Your task to perform on an android device: uninstall "Gmail" Image 0: 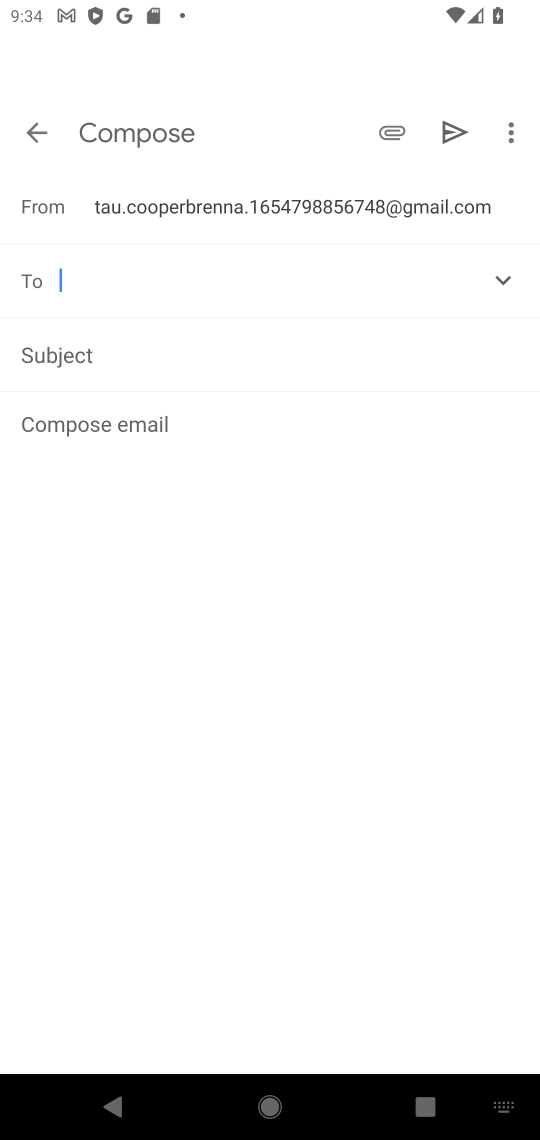
Step 0: press home button
Your task to perform on an android device: uninstall "Gmail" Image 1: 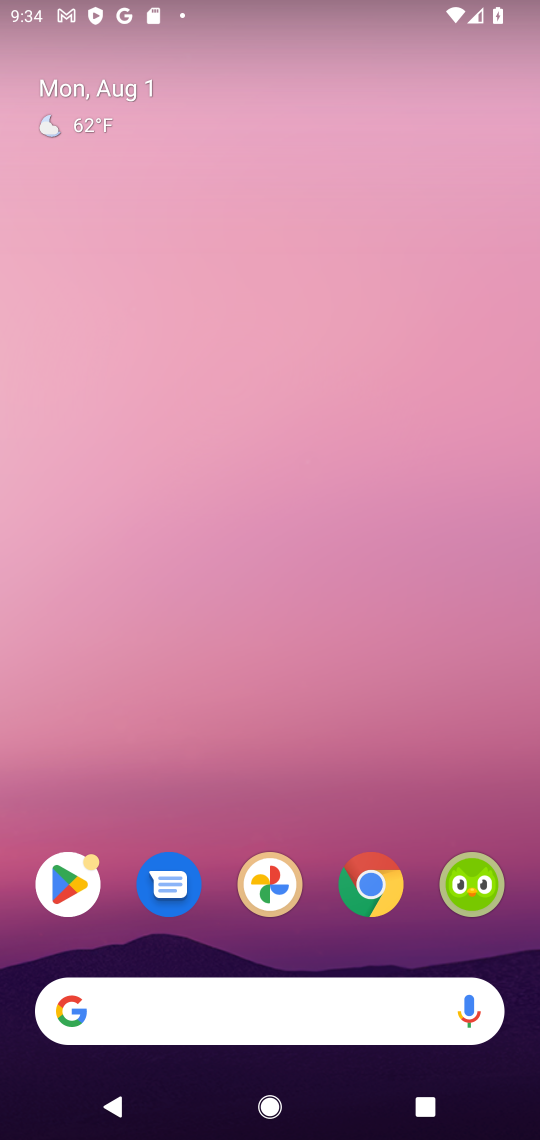
Step 1: drag from (161, 1099) to (214, 169)
Your task to perform on an android device: uninstall "Gmail" Image 2: 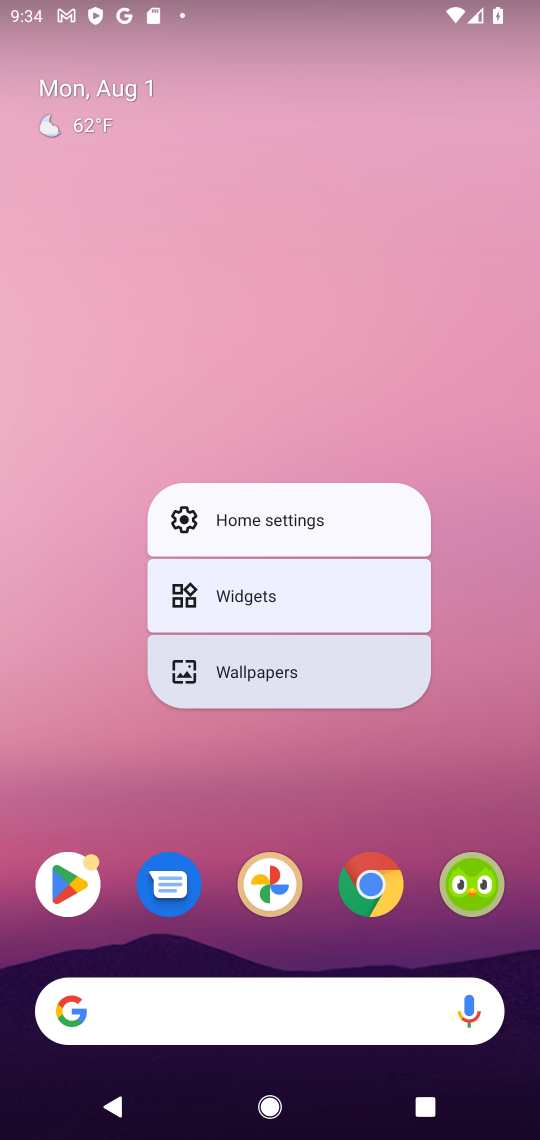
Step 2: click (285, 1108)
Your task to perform on an android device: uninstall "Gmail" Image 3: 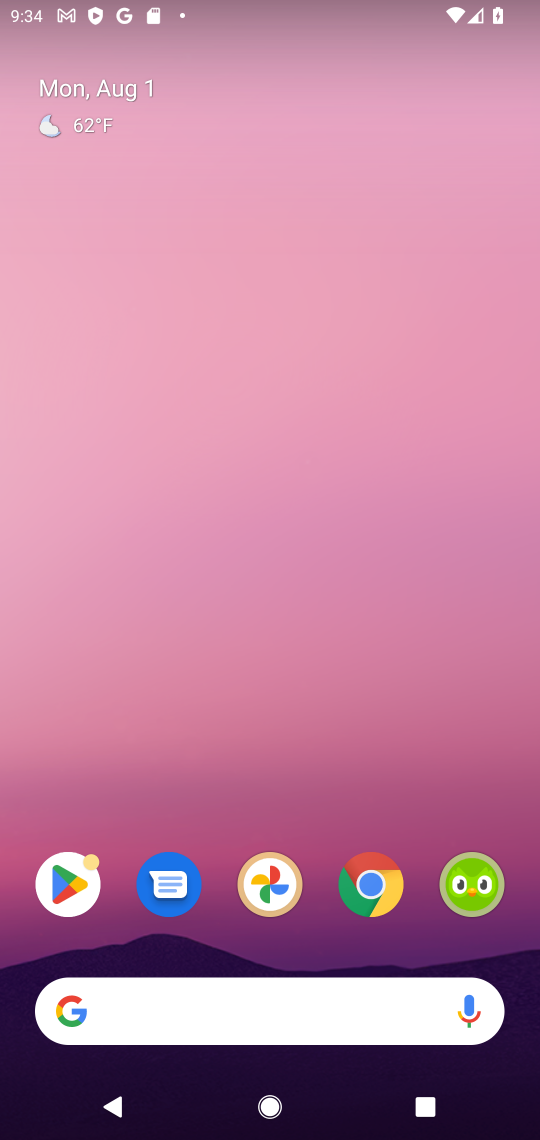
Step 3: click (70, 880)
Your task to perform on an android device: uninstall "Gmail" Image 4: 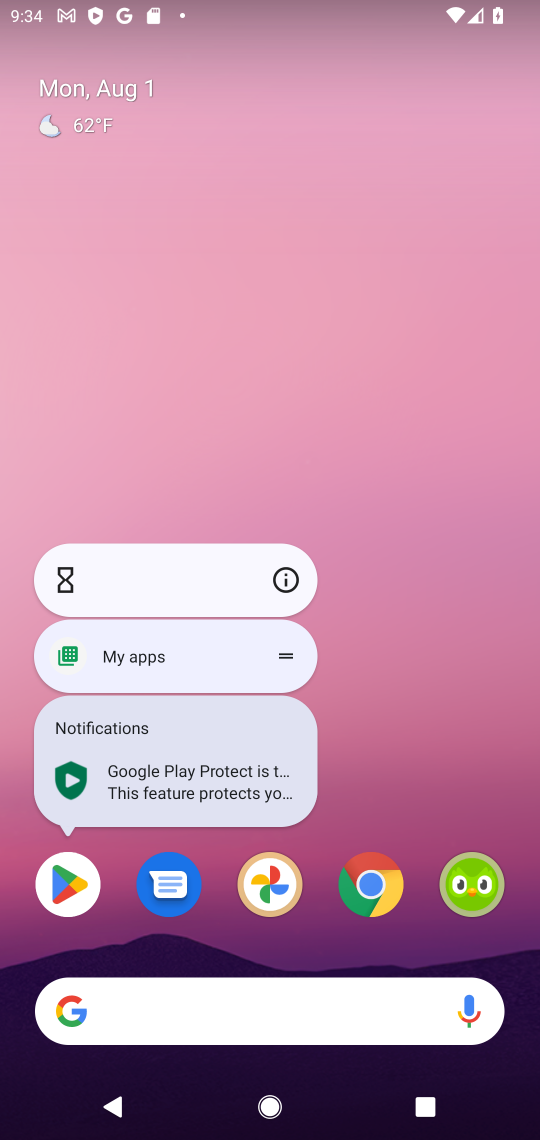
Step 4: click (70, 880)
Your task to perform on an android device: uninstall "Gmail" Image 5: 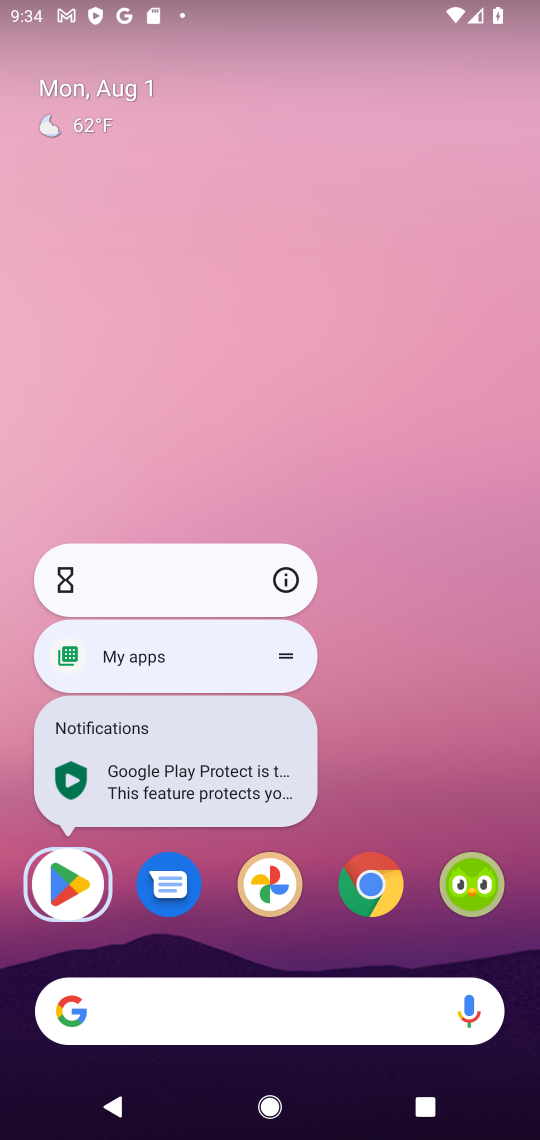
Step 5: click (70, 880)
Your task to perform on an android device: uninstall "Gmail" Image 6: 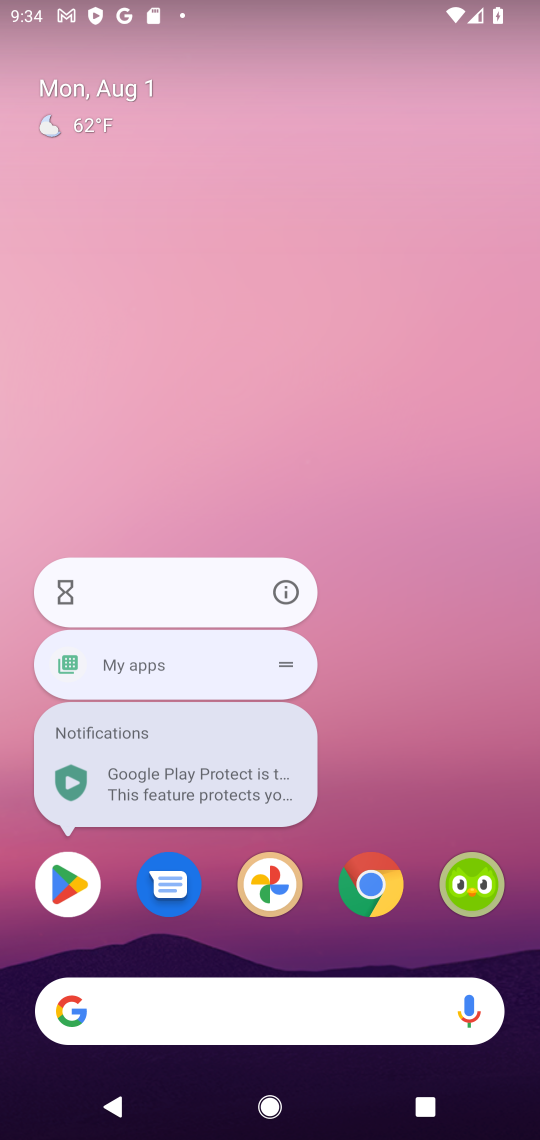
Step 6: click (70, 880)
Your task to perform on an android device: uninstall "Gmail" Image 7: 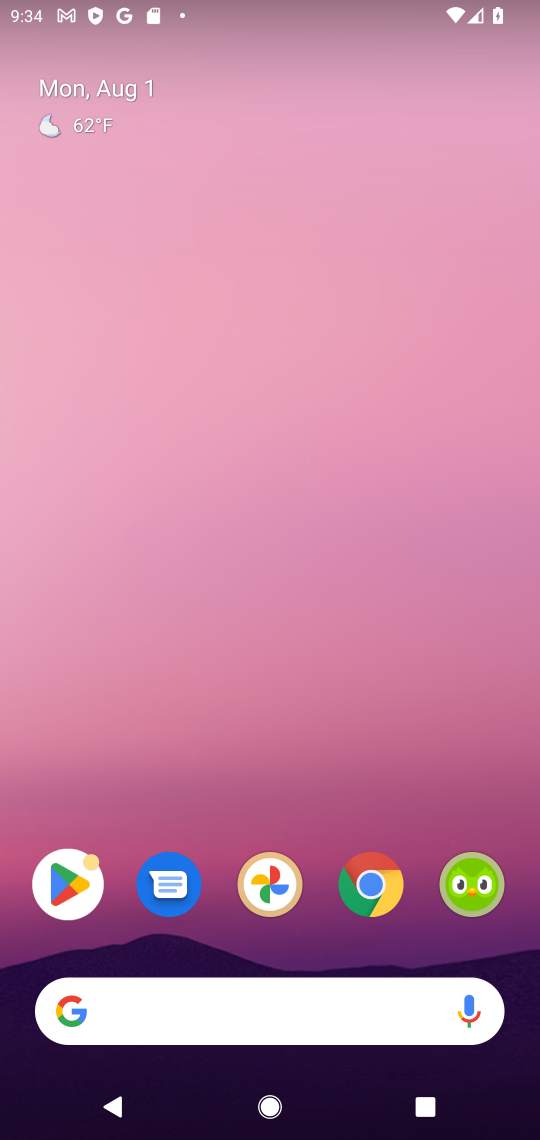
Step 7: click (70, 880)
Your task to perform on an android device: uninstall "Gmail" Image 8: 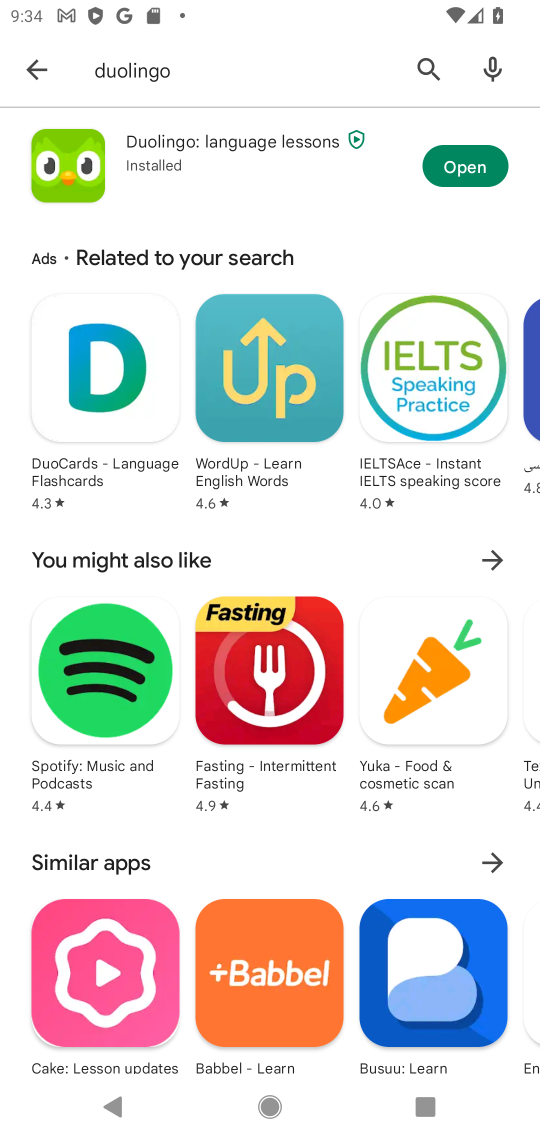
Step 8: click (420, 67)
Your task to perform on an android device: uninstall "Gmail" Image 9: 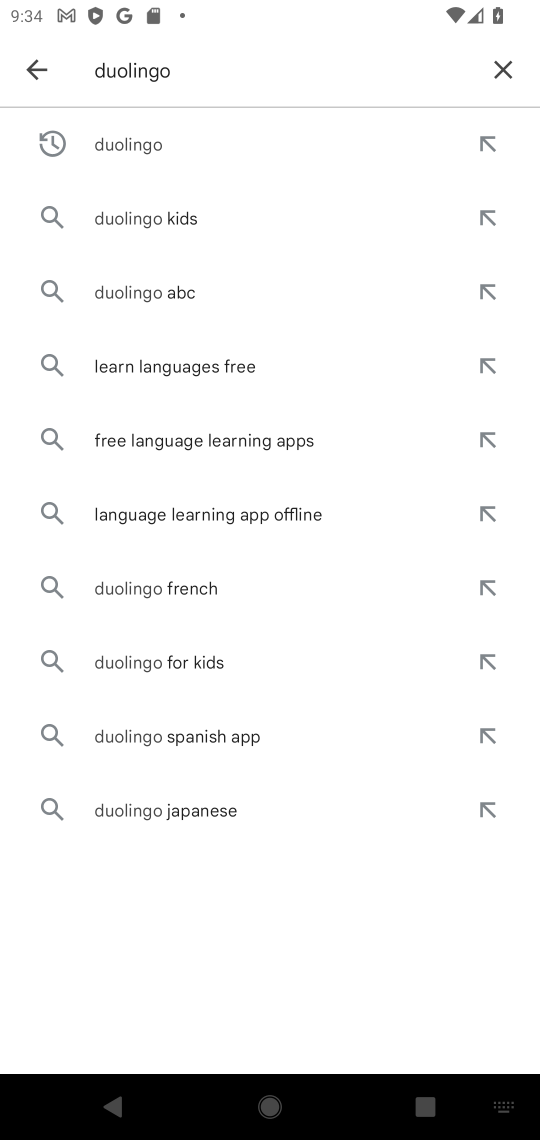
Step 9: click (493, 68)
Your task to perform on an android device: uninstall "Gmail" Image 10: 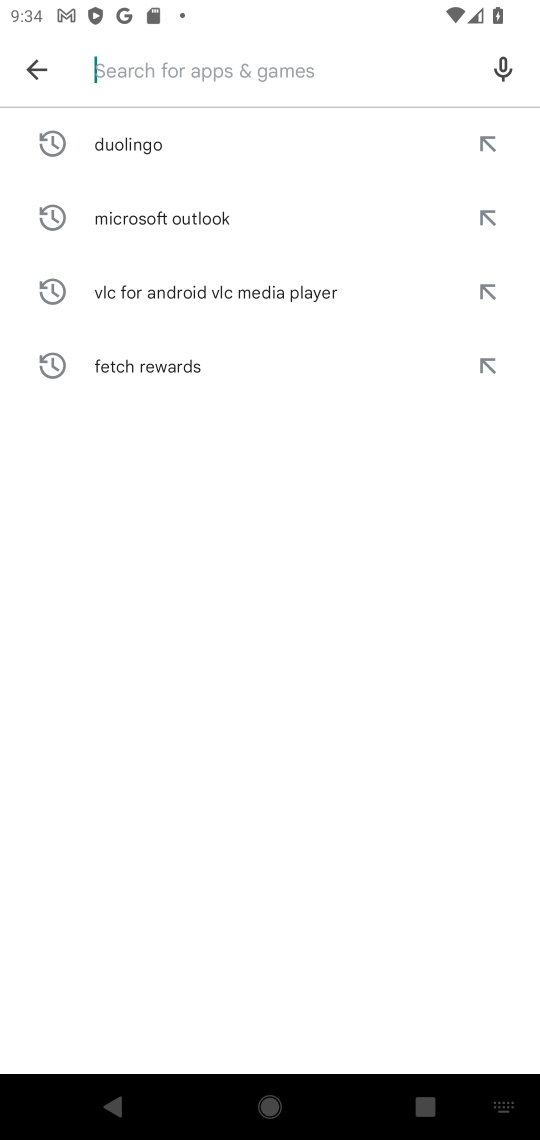
Step 10: click (265, 60)
Your task to perform on an android device: uninstall "Gmail" Image 11: 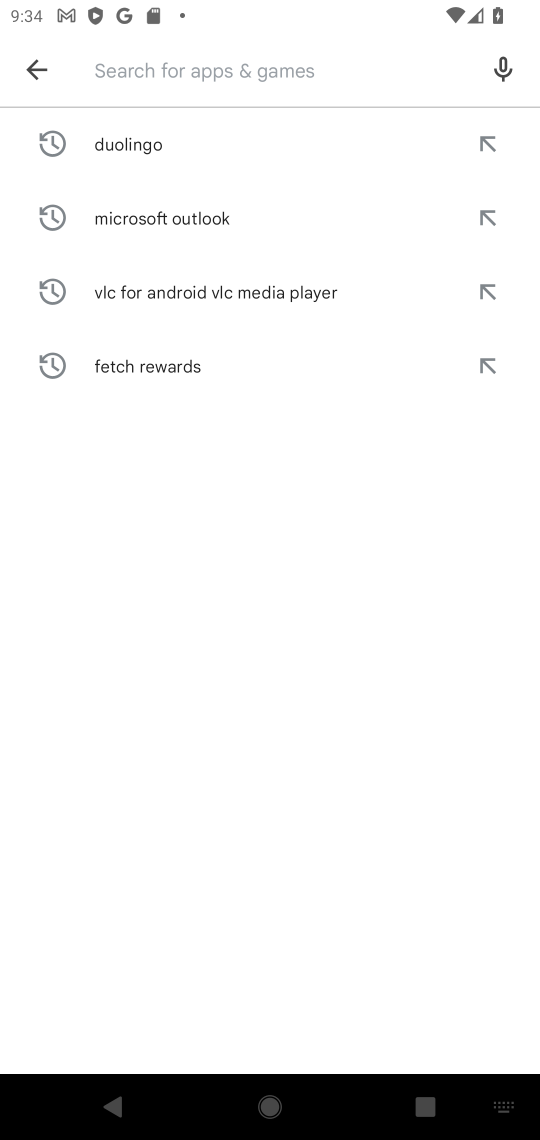
Step 11: type "gmail"
Your task to perform on an android device: uninstall "Gmail" Image 12: 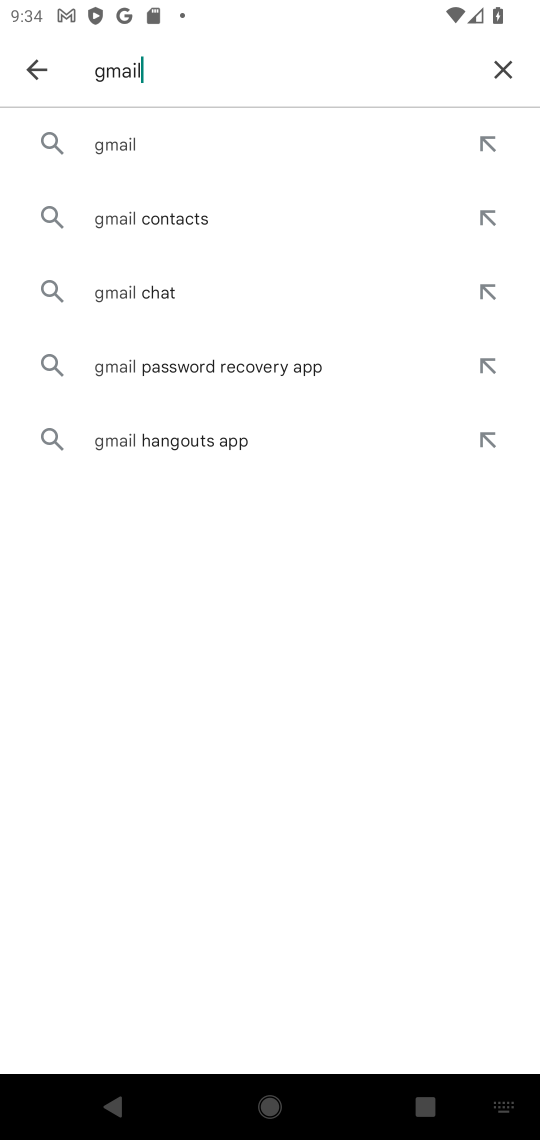
Step 12: click (171, 127)
Your task to perform on an android device: uninstall "Gmail" Image 13: 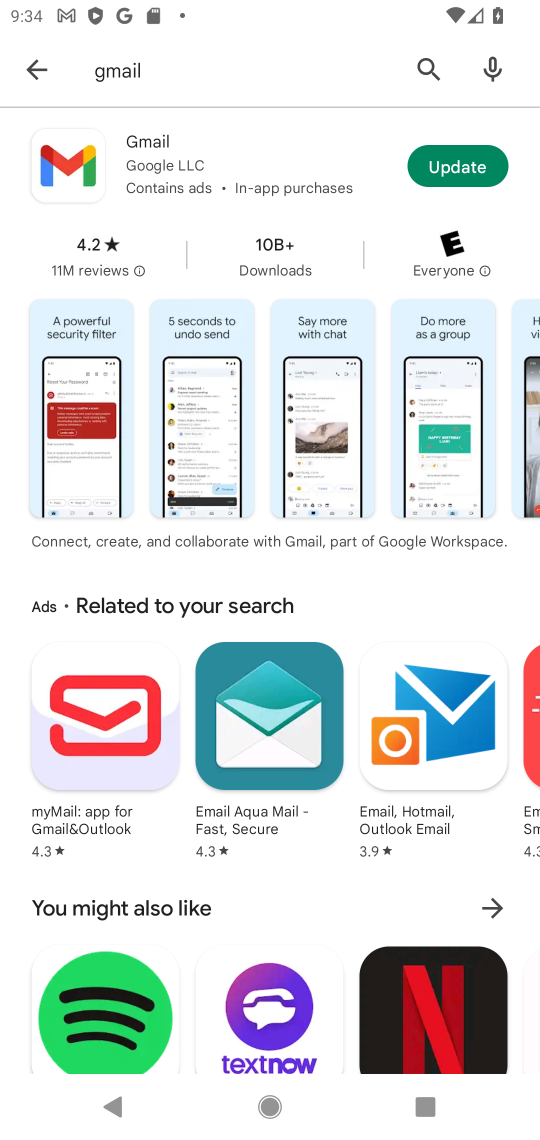
Step 13: click (468, 168)
Your task to perform on an android device: uninstall "Gmail" Image 14: 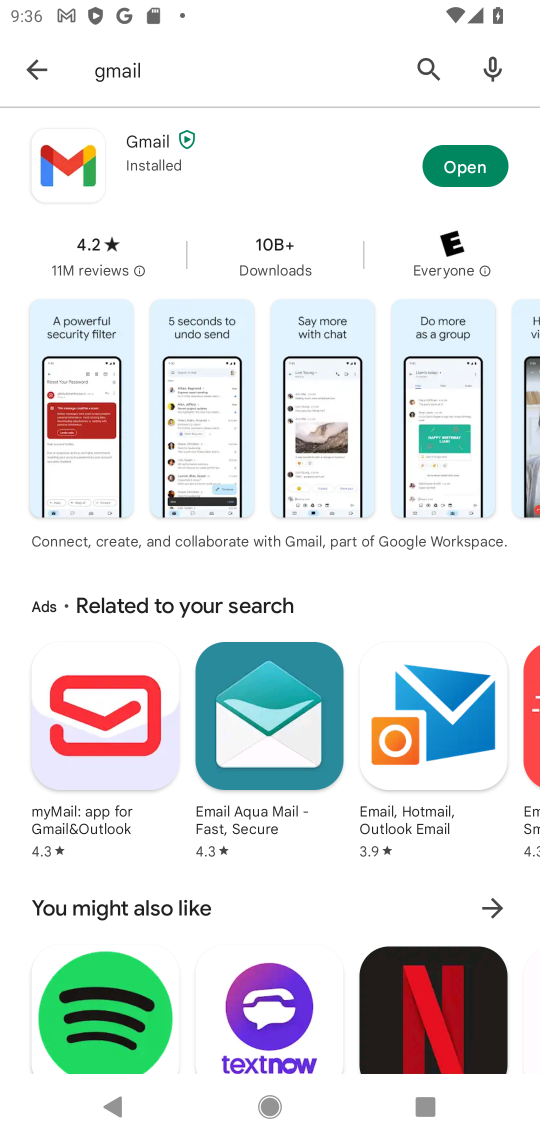
Step 14: task complete